Your task to perform on an android device: empty trash in the gmail app Image 0: 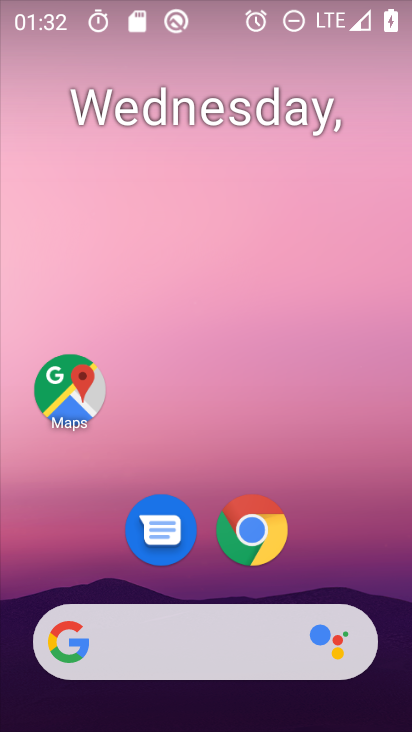
Step 0: drag from (302, 537) to (371, 59)
Your task to perform on an android device: empty trash in the gmail app Image 1: 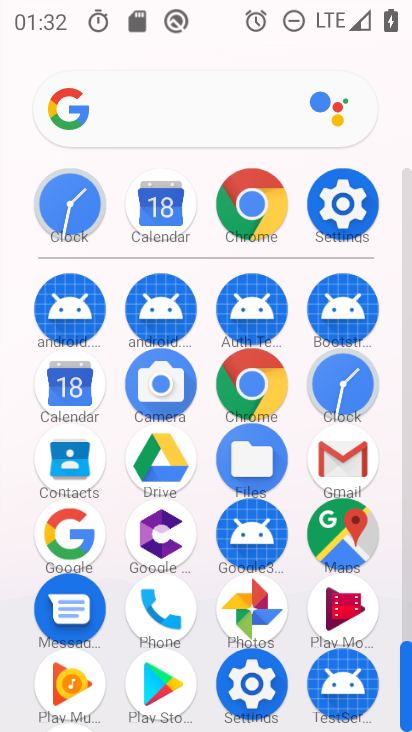
Step 1: click (359, 460)
Your task to perform on an android device: empty trash in the gmail app Image 2: 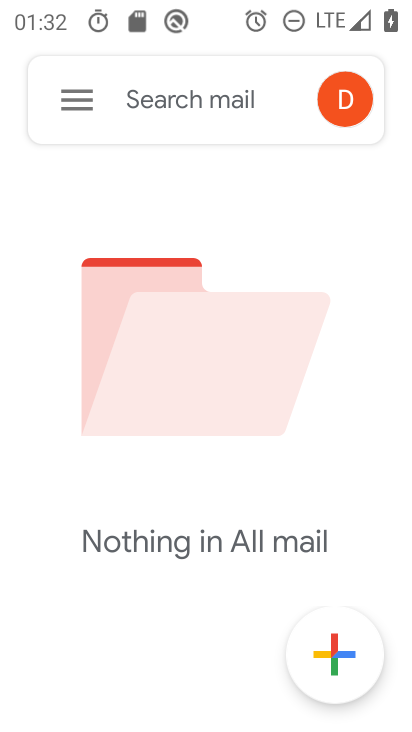
Step 2: click (71, 84)
Your task to perform on an android device: empty trash in the gmail app Image 3: 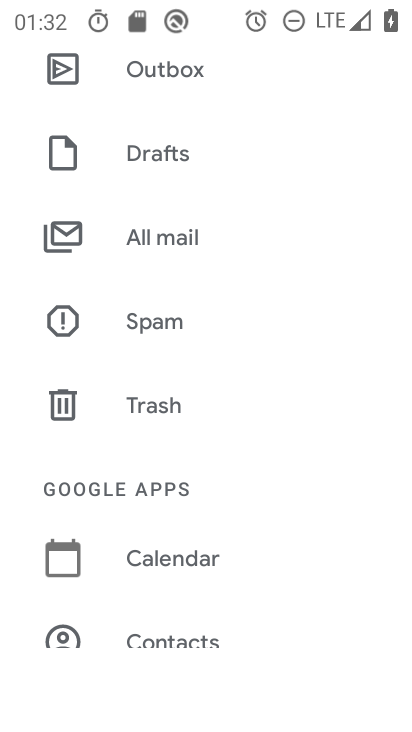
Step 3: click (186, 404)
Your task to perform on an android device: empty trash in the gmail app Image 4: 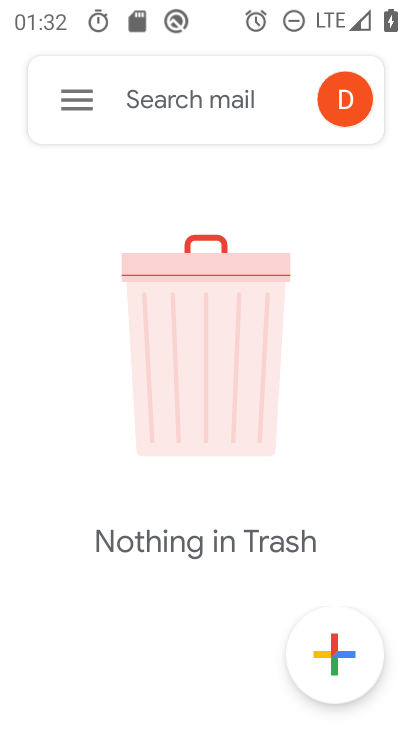
Step 4: task complete